Your task to perform on an android device: Go to Maps Image 0: 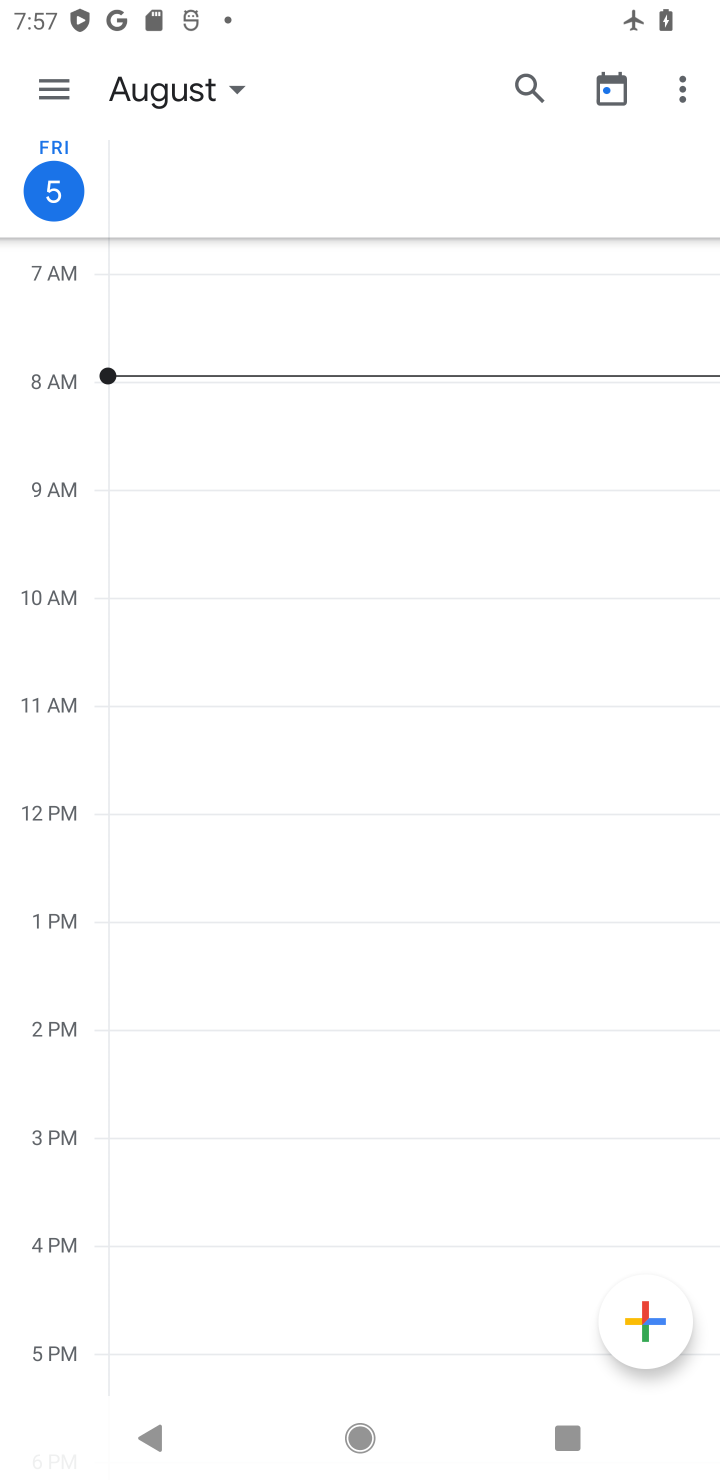
Step 0: press home button
Your task to perform on an android device: Go to Maps Image 1: 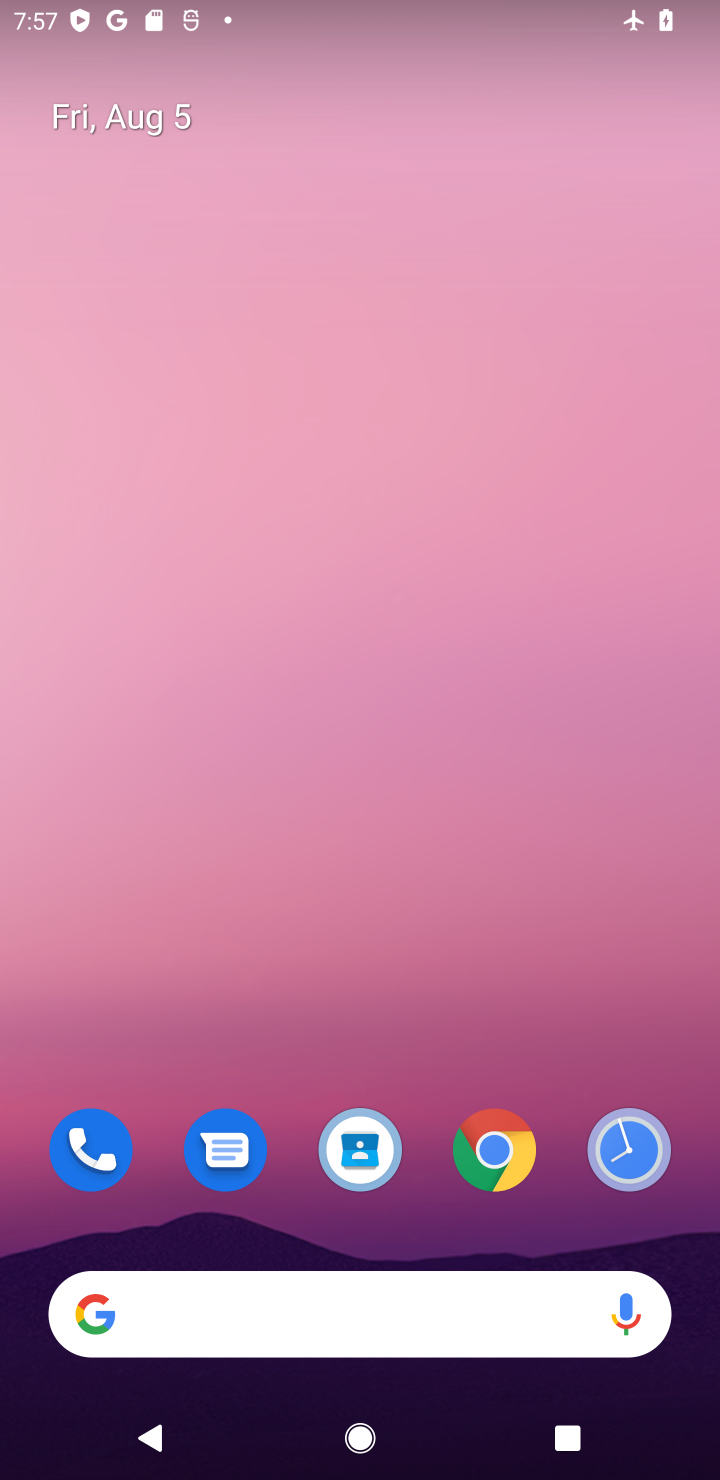
Step 1: drag from (467, 968) to (501, 395)
Your task to perform on an android device: Go to Maps Image 2: 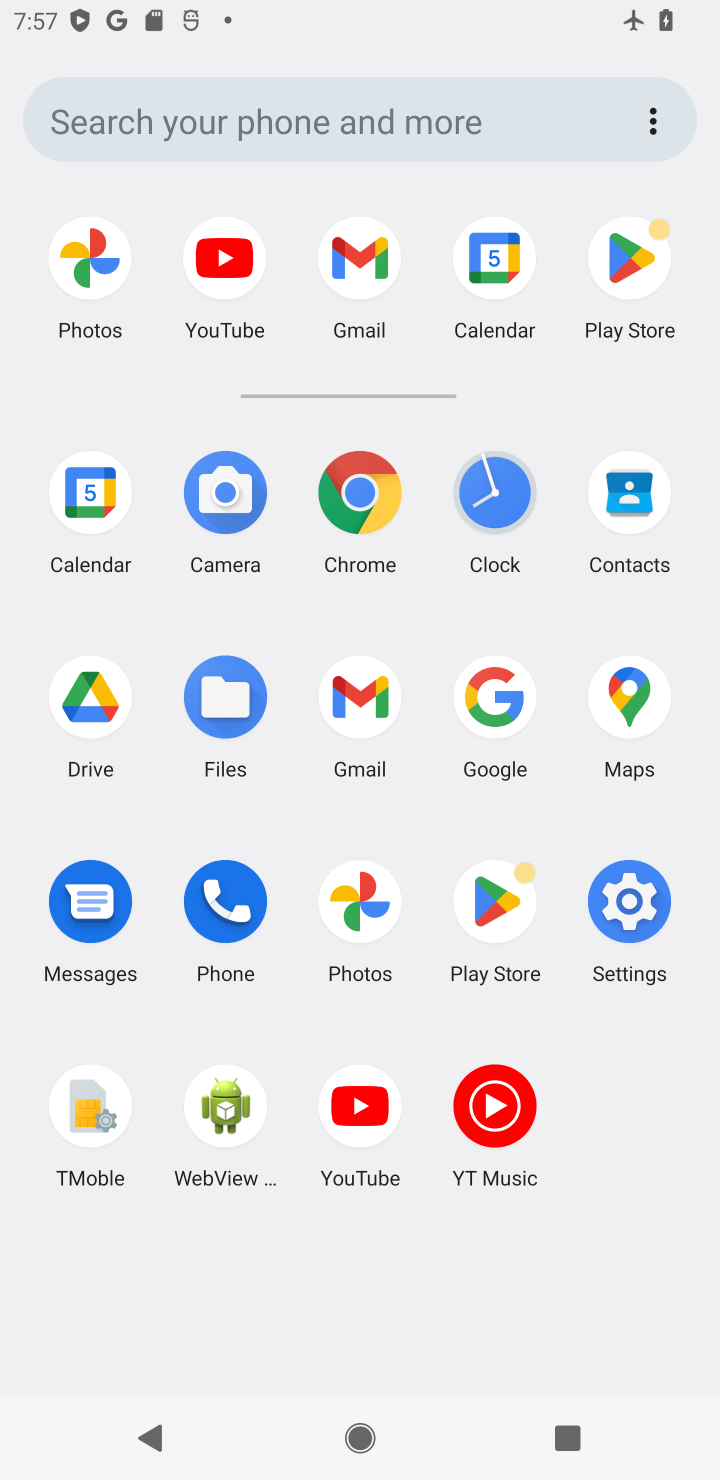
Step 2: click (646, 693)
Your task to perform on an android device: Go to Maps Image 3: 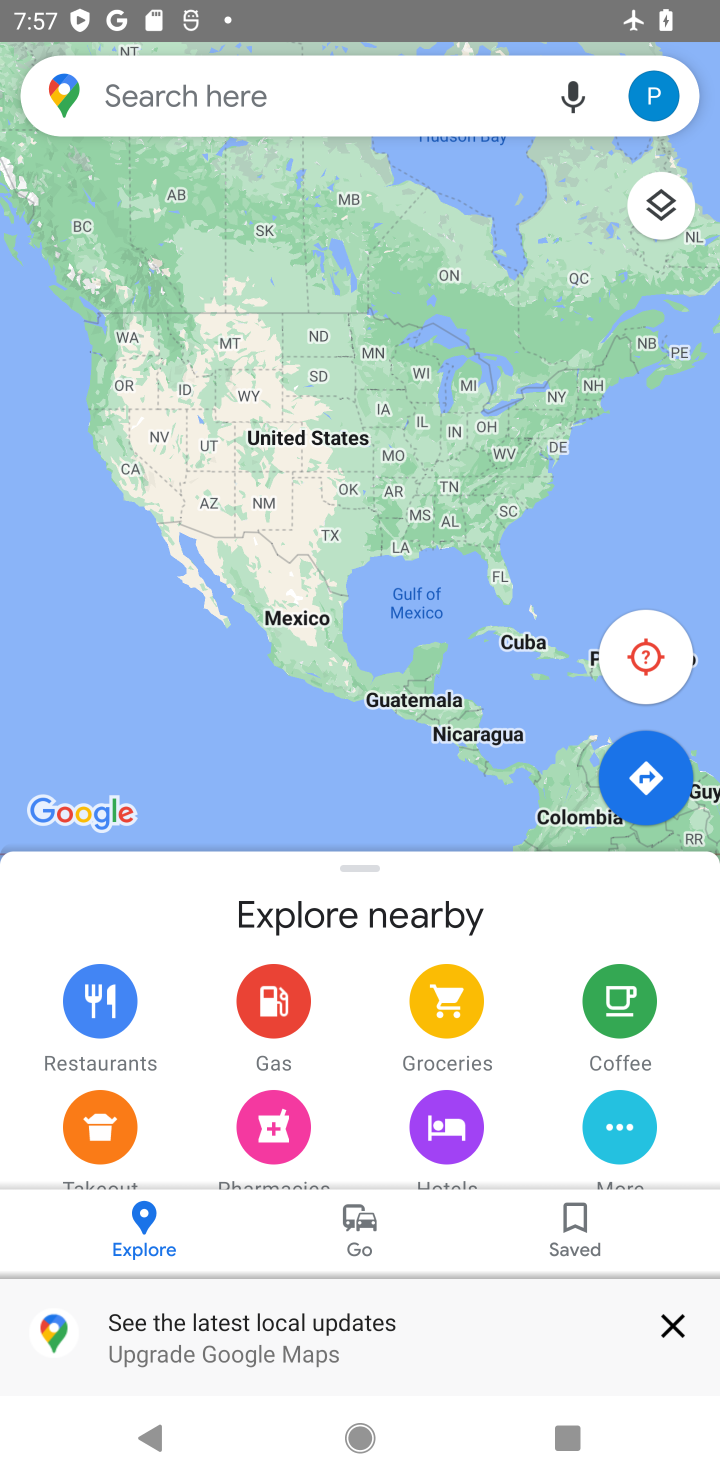
Step 3: task complete